Your task to perform on an android device: Open maps Image 0: 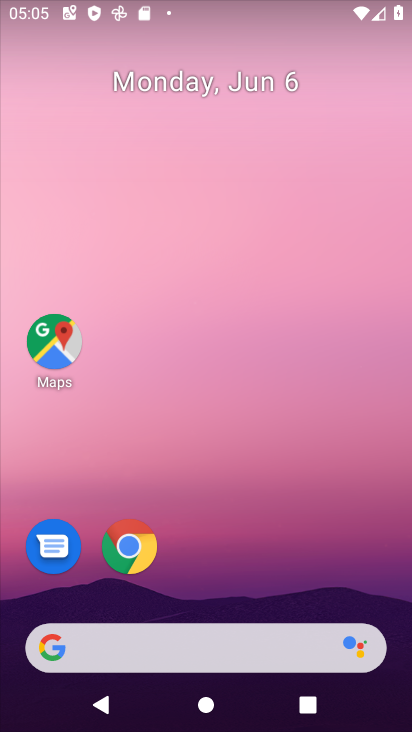
Step 0: task complete